Your task to perform on an android device: make emails show in primary in the gmail app Image 0: 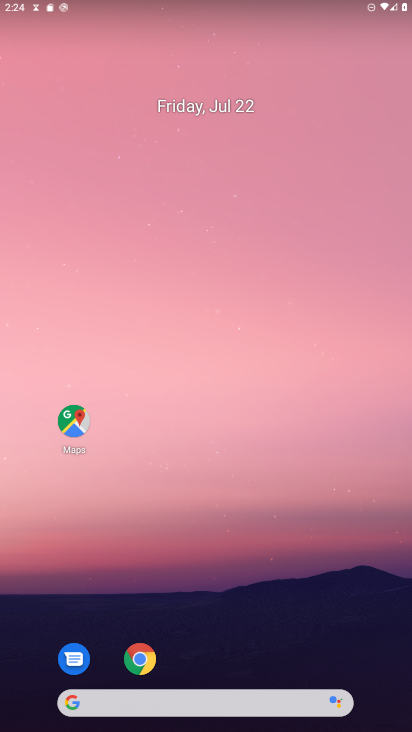
Step 0: drag from (323, 573) to (310, 0)
Your task to perform on an android device: make emails show in primary in the gmail app Image 1: 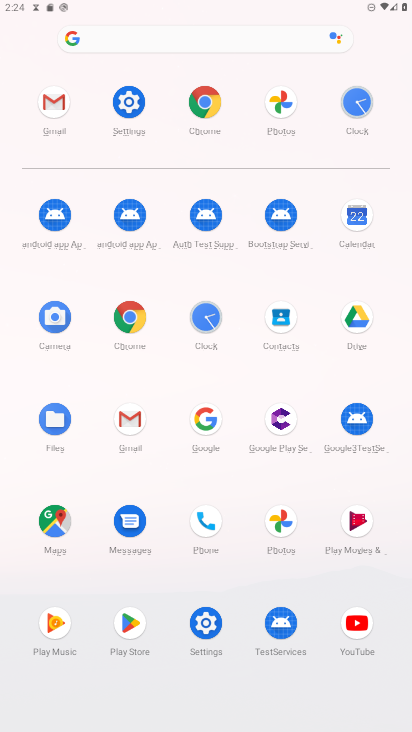
Step 1: click (62, 105)
Your task to perform on an android device: make emails show in primary in the gmail app Image 2: 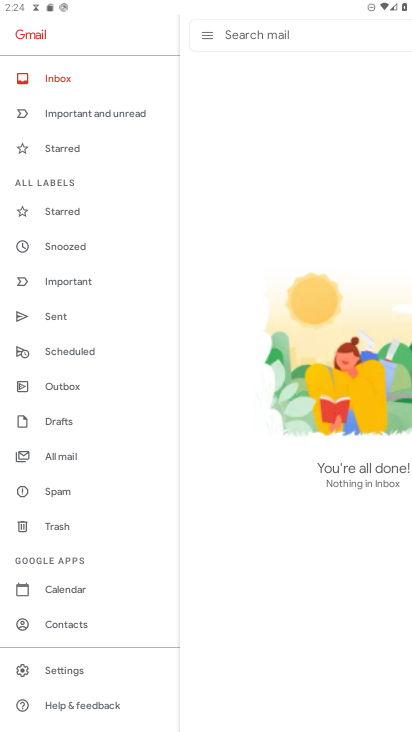
Step 2: click (65, 676)
Your task to perform on an android device: make emails show in primary in the gmail app Image 3: 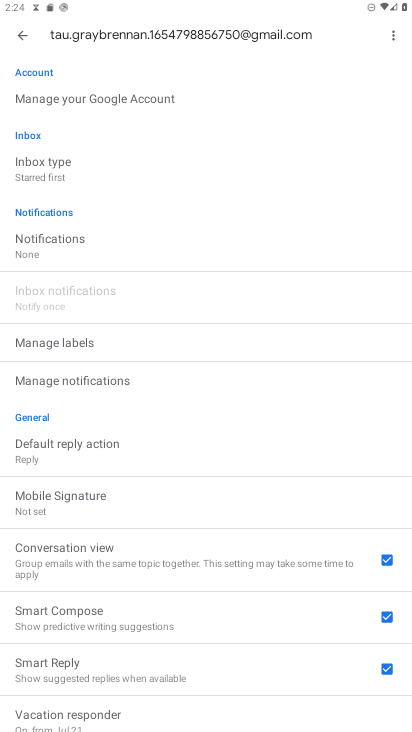
Step 3: drag from (134, 157) to (244, 576)
Your task to perform on an android device: make emails show in primary in the gmail app Image 4: 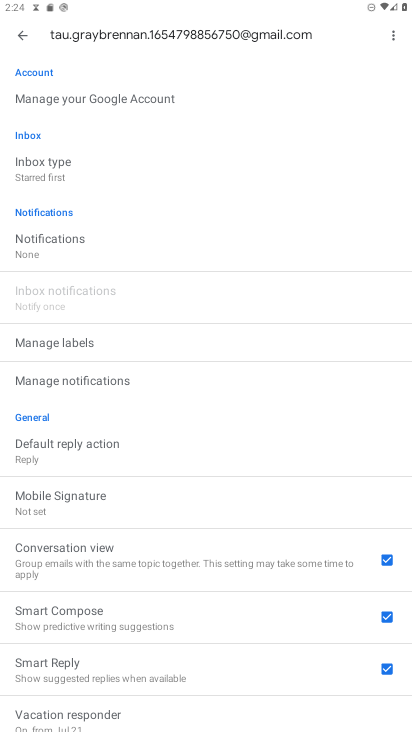
Step 4: click (41, 163)
Your task to perform on an android device: make emails show in primary in the gmail app Image 5: 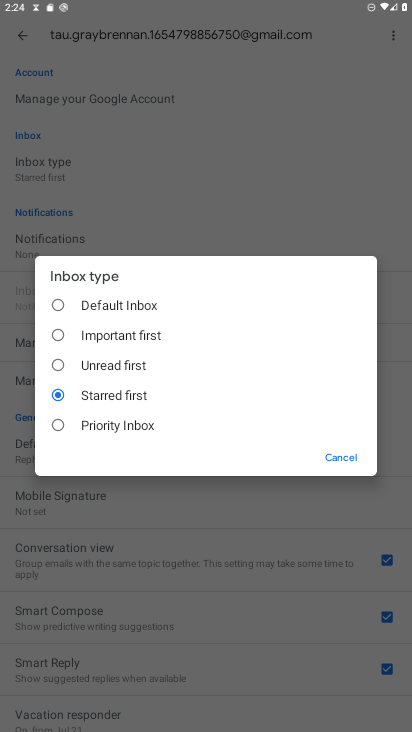
Step 5: click (99, 295)
Your task to perform on an android device: make emails show in primary in the gmail app Image 6: 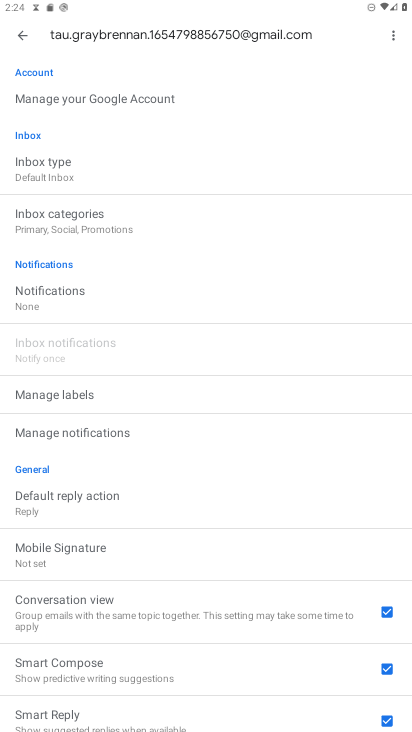
Step 6: task complete